Your task to perform on an android device: open device folders in google photos Image 0: 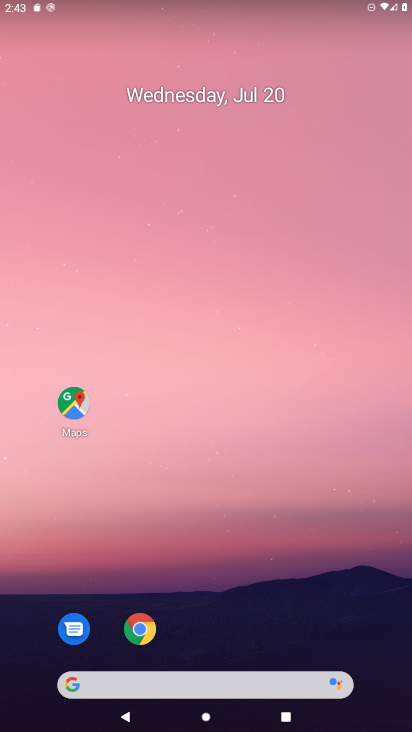
Step 0: drag from (271, 660) to (18, 82)
Your task to perform on an android device: open device folders in google photos Image 1: 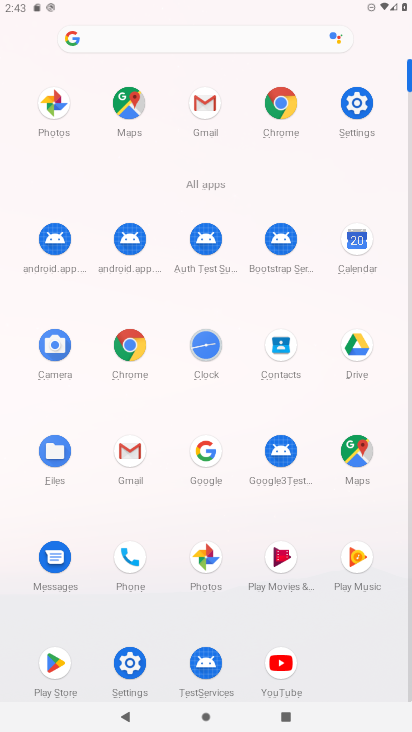
Step 1: click (213, 563)
Your task to perform on an android device: open device folders in google photos Image 2: 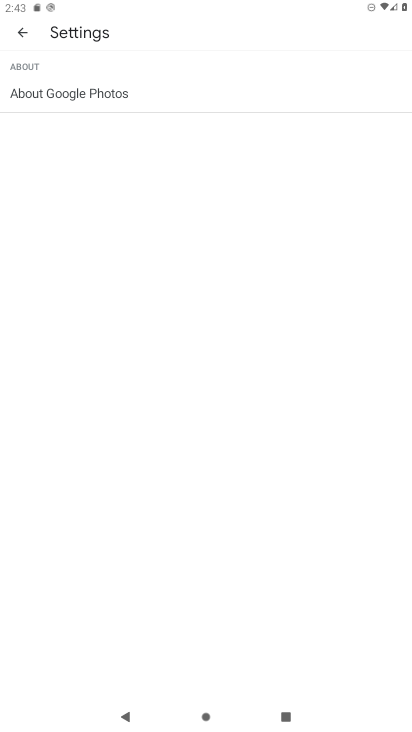
Step 2: click (20, 36)
Your task to perform on an android device: open device folders in google photos Image 3: 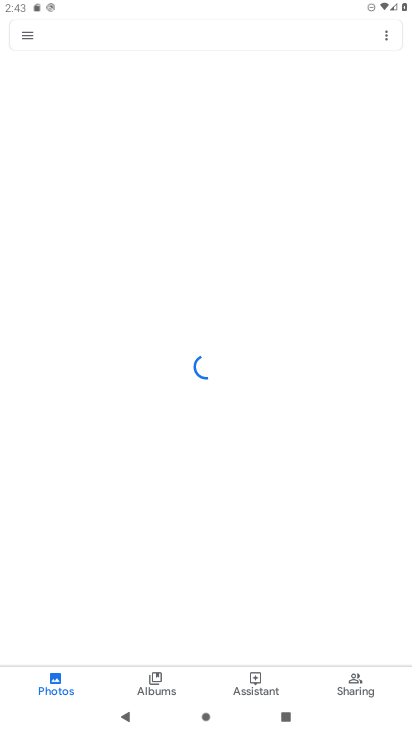
Step 3: click (25, 36)
Your task to perform on an android device: open device folders in google photos Image 4: 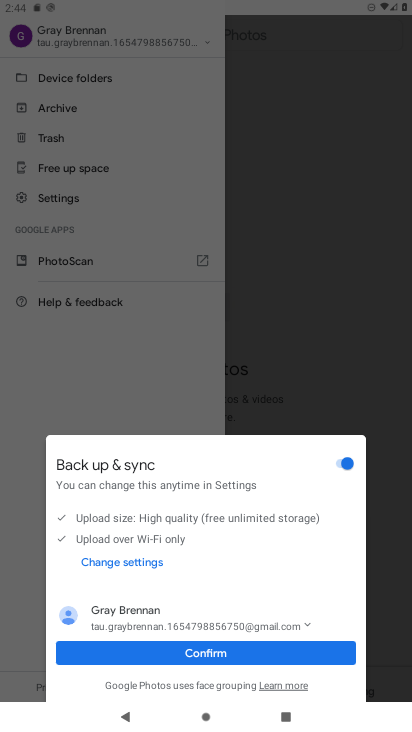
Step 4: click (96, 656)
Your task to perform on an android device: open device folders in google photos Image 5: 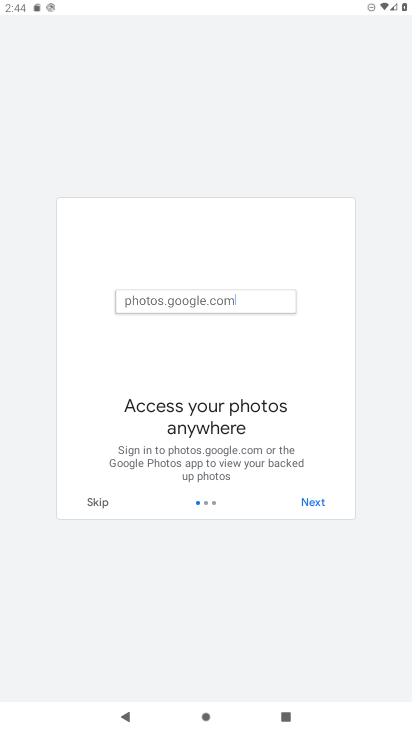
Step 5: click (301, 508)
Your task to perform on an android device: open device folders in google photos Image 6: 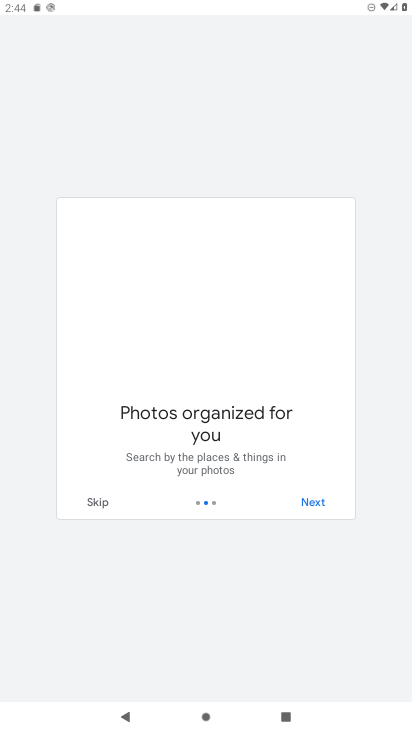
Step 6: click (301, 508)
Your task to perform on an android device: open device folders in google photos Image 7: 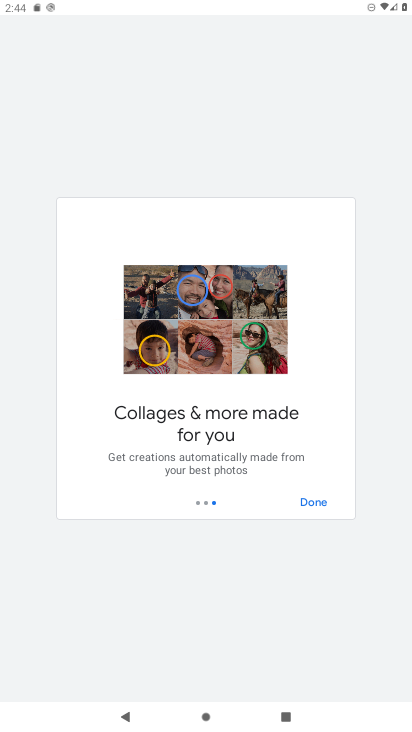
Step 7: click (296, 502)
Your task to perform on an android device: open device folders in google photos Image 8: 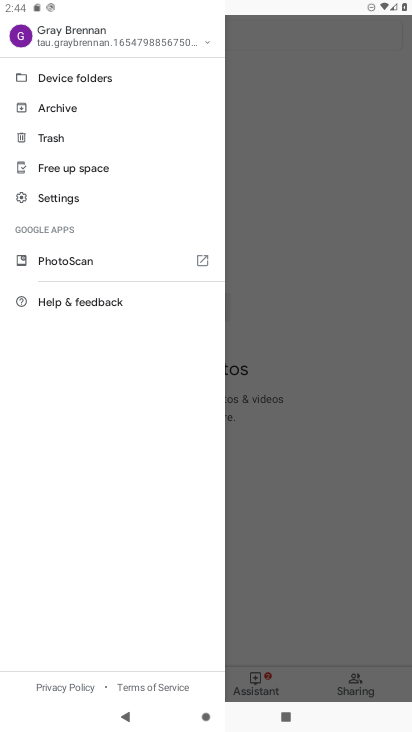
Step 8: click (43, 83)
Your task to perform on an android device: open device folders in google photos Image 9: 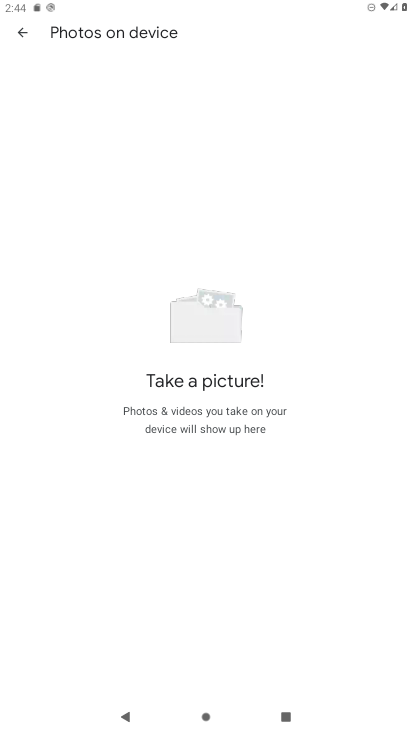
Step 9: task complete